Your task to perform on an android device: toggle airplane mode Image 0: 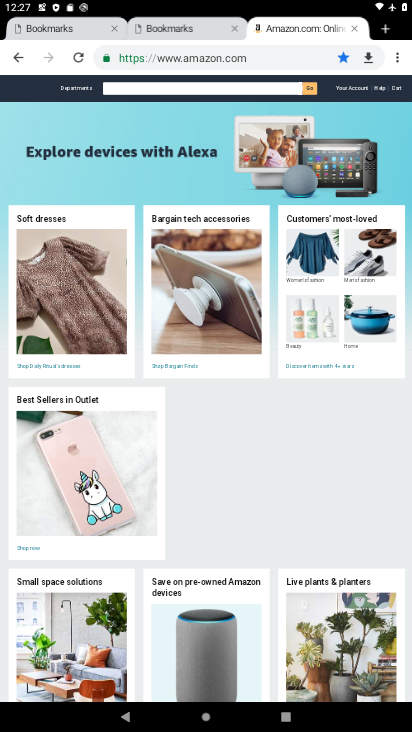
Step 0: click (396, 63)
Your task to perform on an android device: toggle airplane mode Image 1: 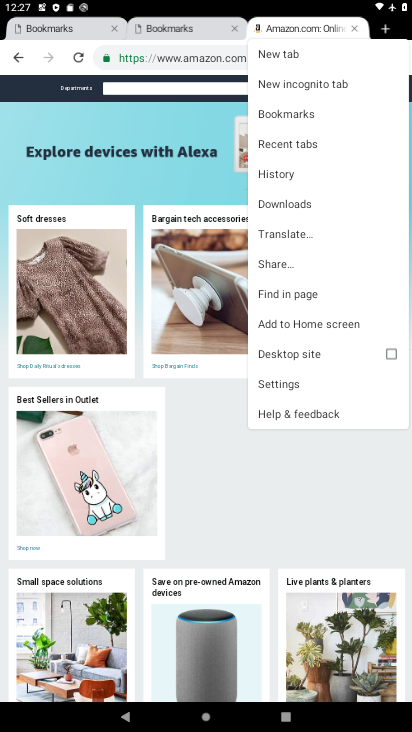
Step 1: click (273, 392)
Your task to perform on an android device: toggle airplane mode Image 2: 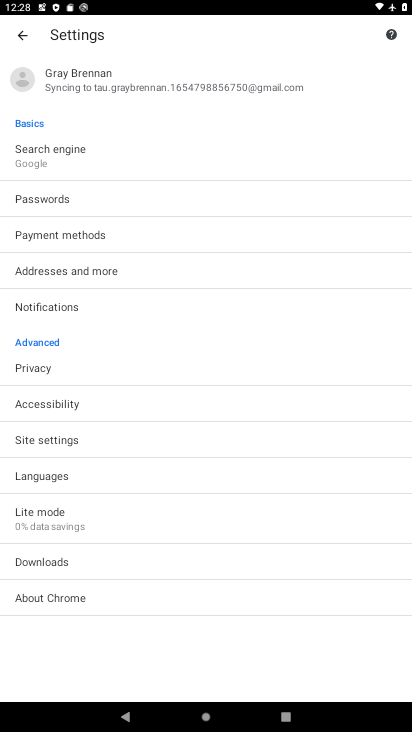
Step 2: task complete